Your task to perform on an android device: change the upload size in google photos Image 0: 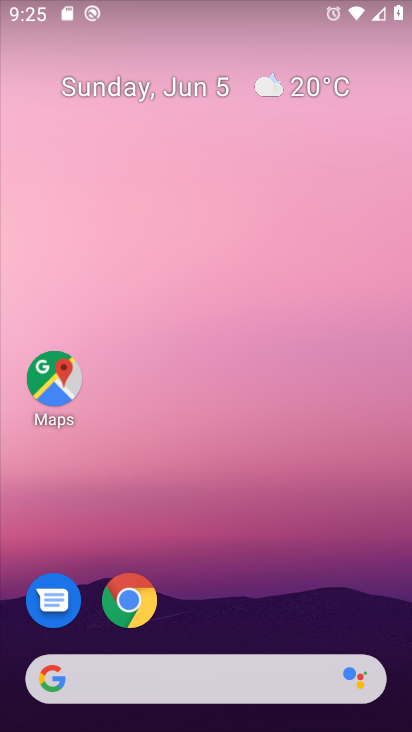
Step 0: drag from (231, 566) to (279, 55)
Your task to perform on an android device: change the upload size in google photos Image 1: 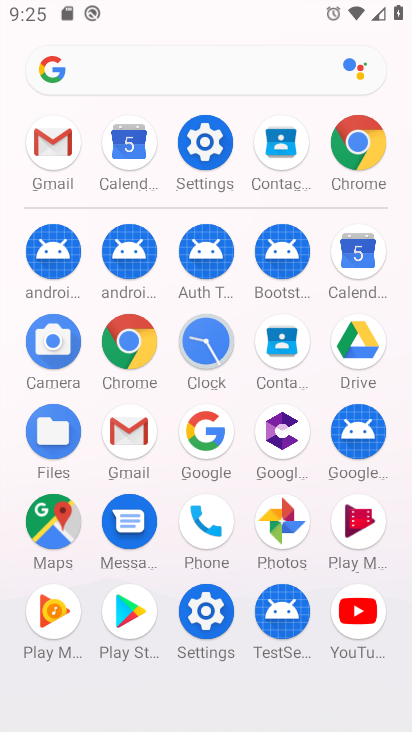
Step 1: click (265, 510)
Your task to perform on an android device: change the upload size in google photos Image 2: 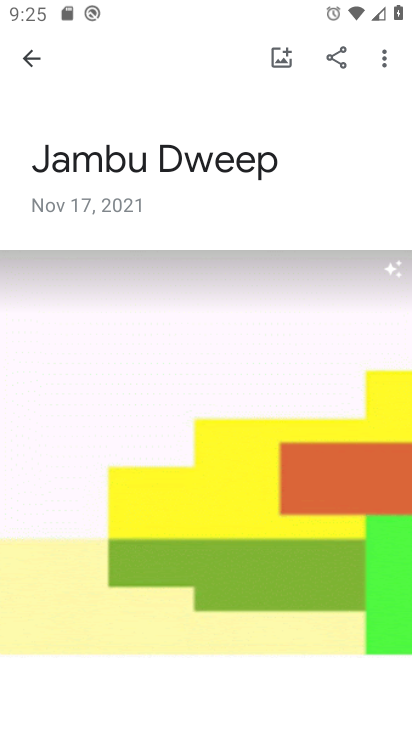
Step 2: click (26, 56)
Your task to perform on an android device: change the upload size in google photos Image 3: 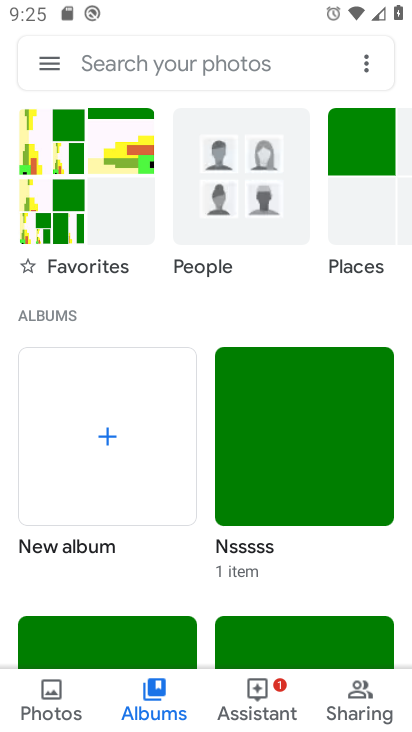
Step 3: click (49, 65)
Your task to perform on an android device: change the upload size in google photos Image 4: 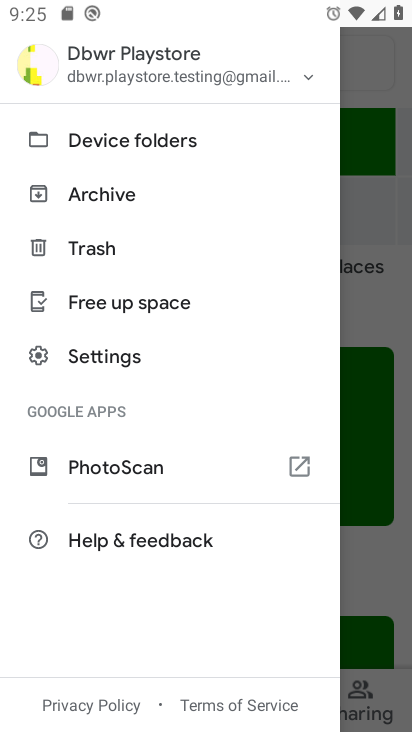
Step 4: click (121, 348)
Your task to perform on an android device: change the upload size in google photos Image 5: 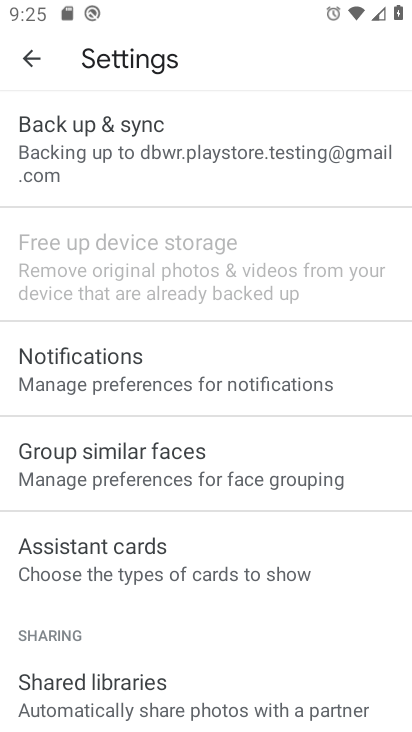
Step 5: click (179, 147)
Your task to perform on an android device: change the upload size in google photos Image 6: 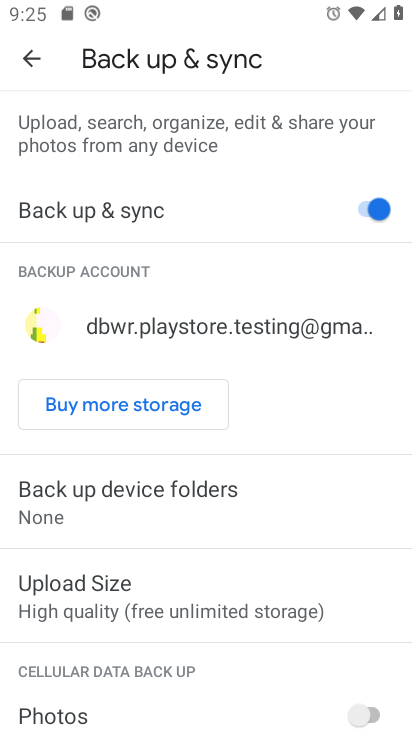
Step 6: click (176, 582)
Your task to perform on an android device: change the upload size in google photos Image 7: 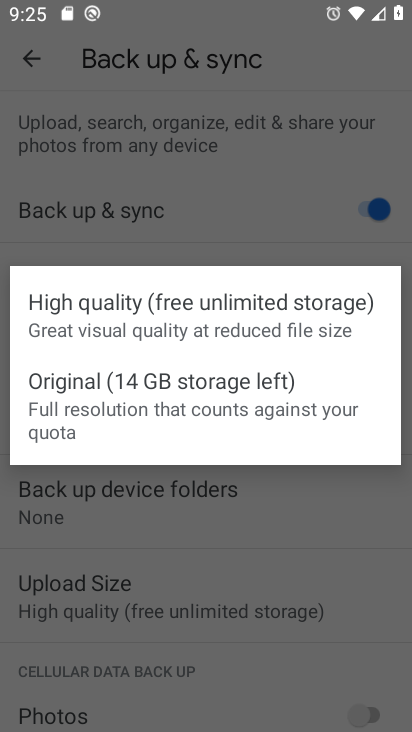
Step 7: click (177, 399)
Your task to perform on an android device: change the upload size in google photos Image 8: 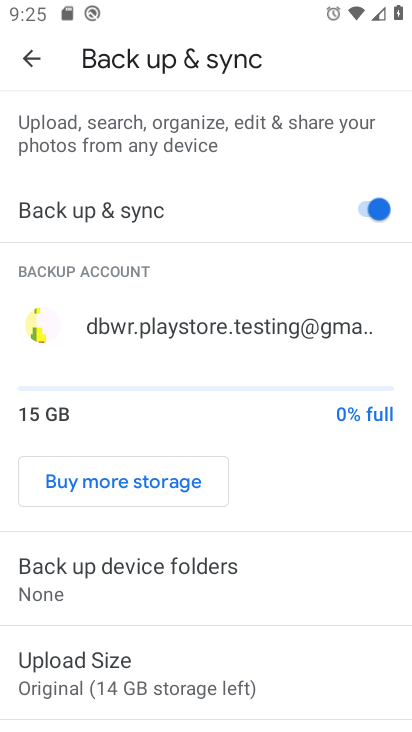
Step 8: task complete